Your task to perform on an android device: Open the calendar and show me this week's events? Image 0: 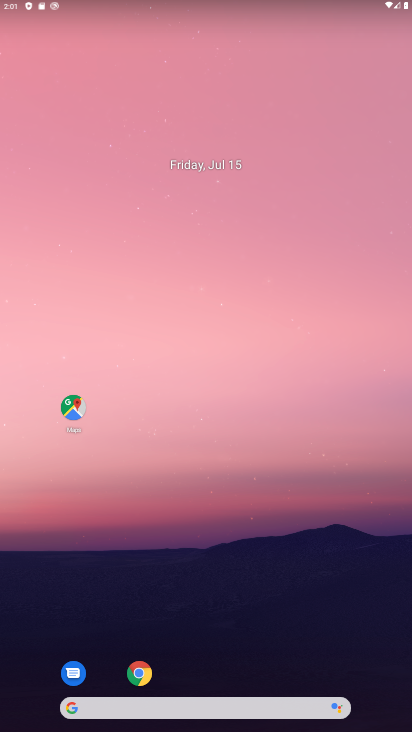
Step 0: drag from (256, 687) to (202, 262)
Your task to perform on an android device: Open the calendar and show me this week's events? Image 1: 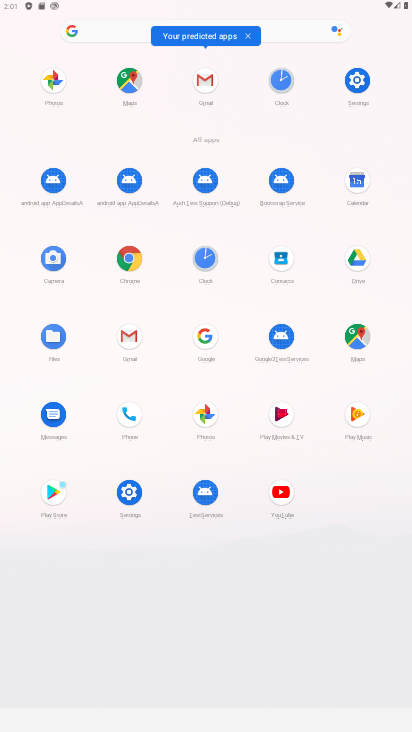
Step 1: click (354, 171)
Your task to perform on an android device: Open the calendar and show me this week's events? Image 2: 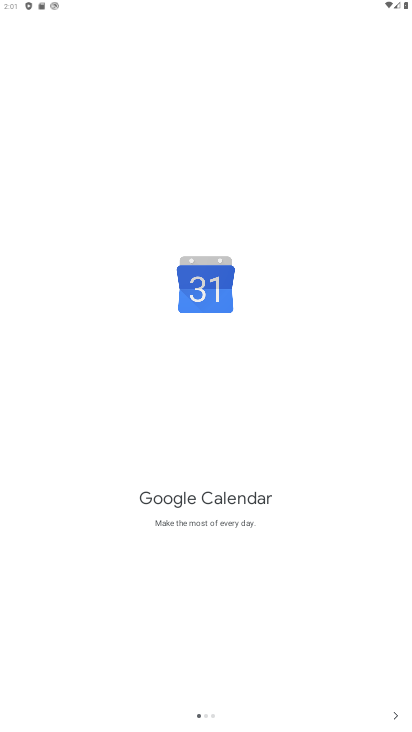
Step 2: click (392, 716)
Your task to perform on an android device: Open the calendar and show me this week's events? Image 3: 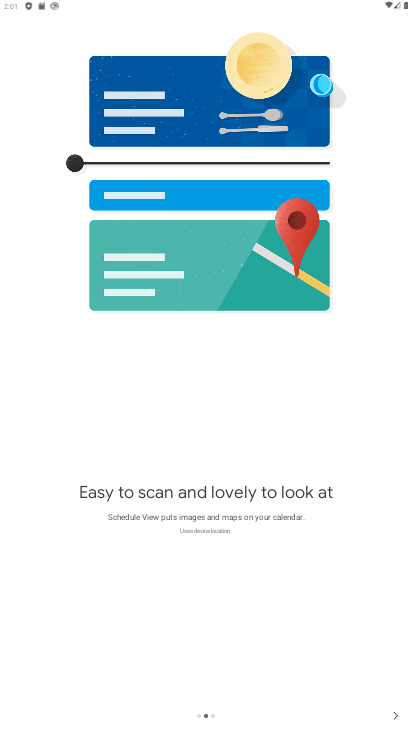
Step 3: click (394, 719)
Your task to perform on an android device: Open the calendar and show me this week's events? Image 4: 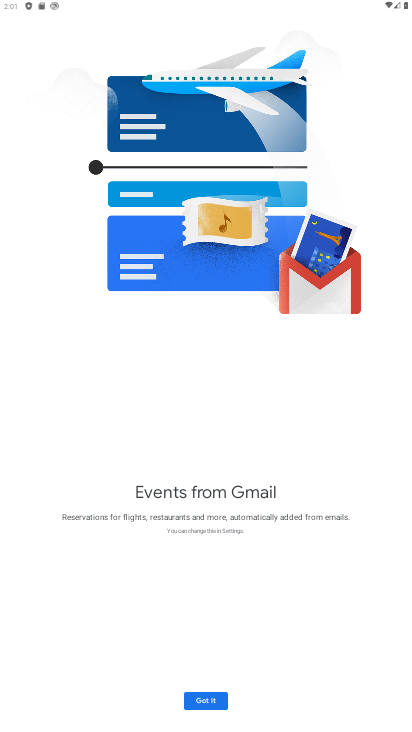
Step 4: click (209, 706)
Your task to perform on an android device: Open the calendar and show me this week's events? Image 5: 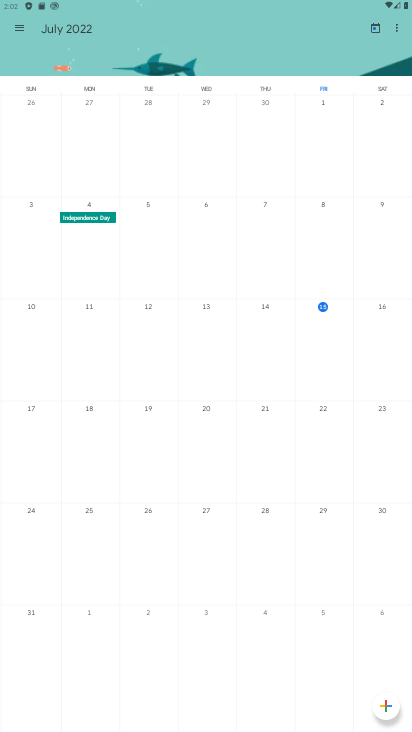
Step 5: click (35, 397)
Your task to perform on an android device: Open the calendar and show me this week's events? Image 6: 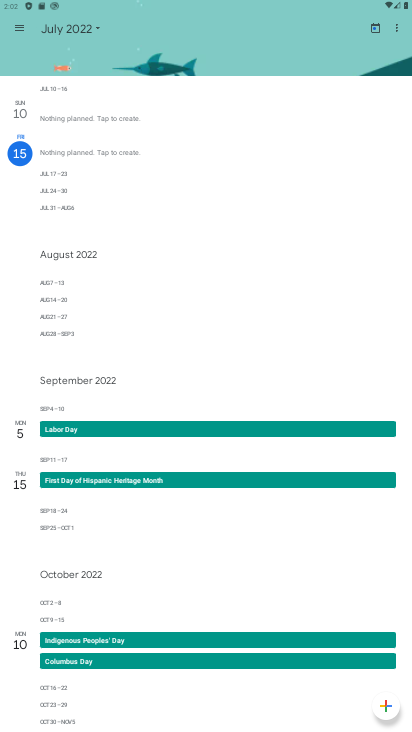
Step 6: task complete